Your task to perform on an android device: Go to Google Image 0: 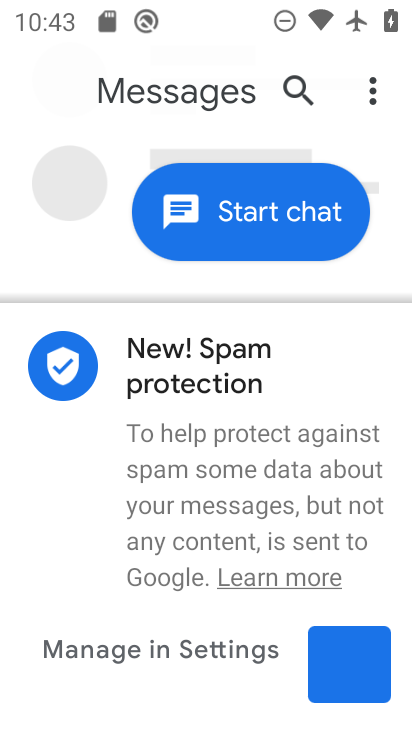
Step 0: press home button
Your task to perform on an android device: Go to Google Image 1: 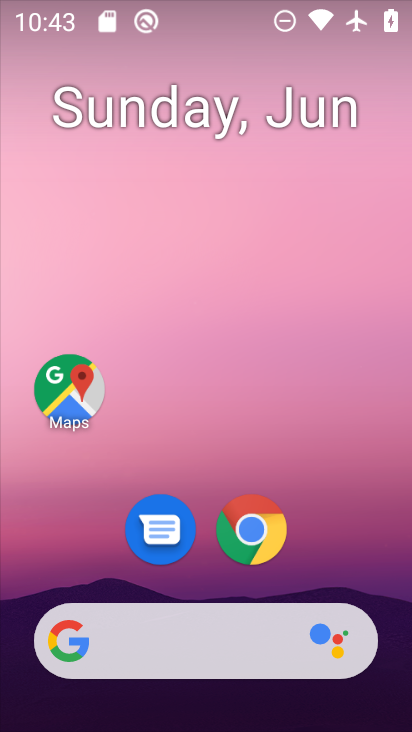
Step 1: click (259, 528)
Your task to perform on an android device: Go to Google Image 2: 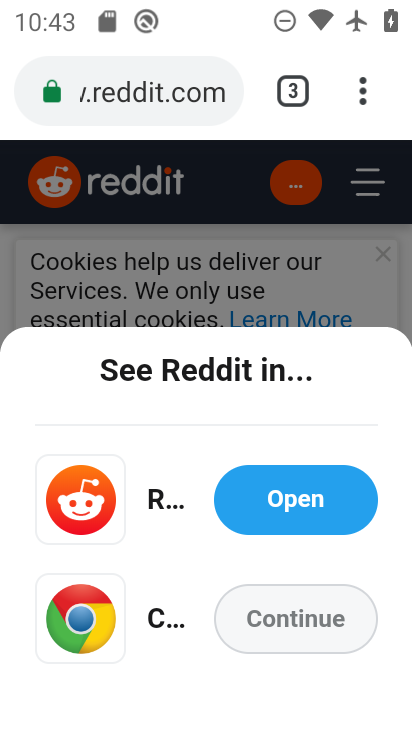
Step 2: task complete